Your task to perform on an android device: Go to privacy settings Image 0: 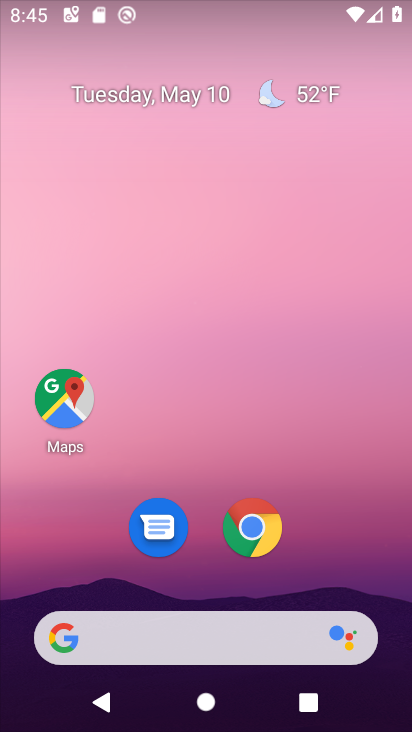
Step 0: click (253, 527)
Your task to perform on an android device: Go to privacy settings Image 1: 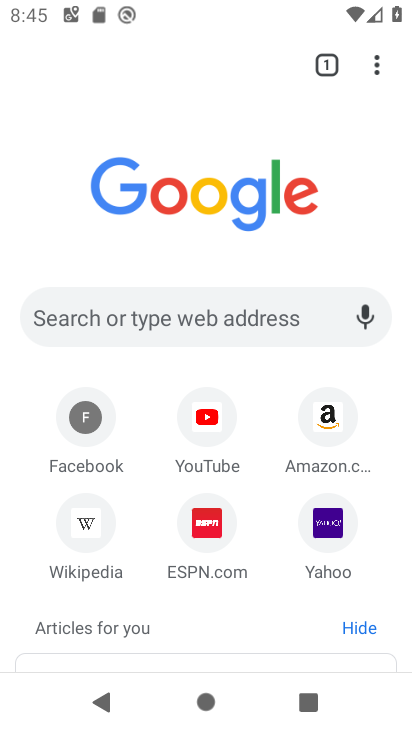
Step 1: click (377, 65)
Your task to perform on an android device: Go to privacy settings Image 2: 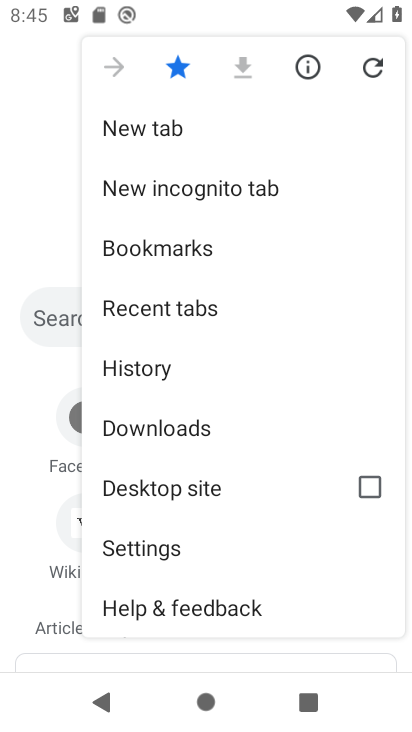
Step 2: click (161, 553)
Your task to perform on an android device: Go to privacy settings Image 3: 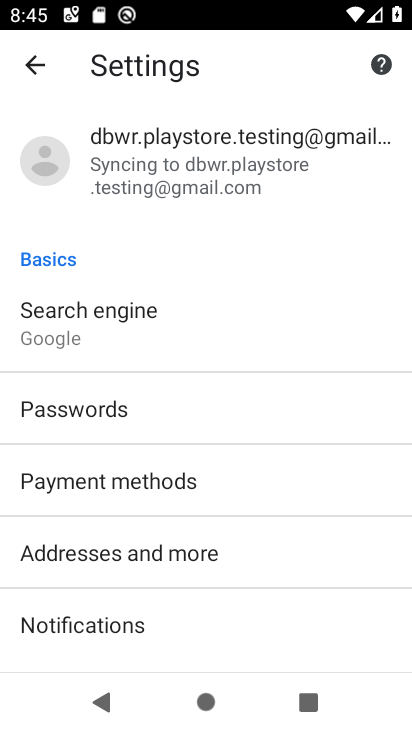
Step 3: drag from (195, 654) to (175, 207)
Your task to perform on an android device: Go to privacy settings Image 4: 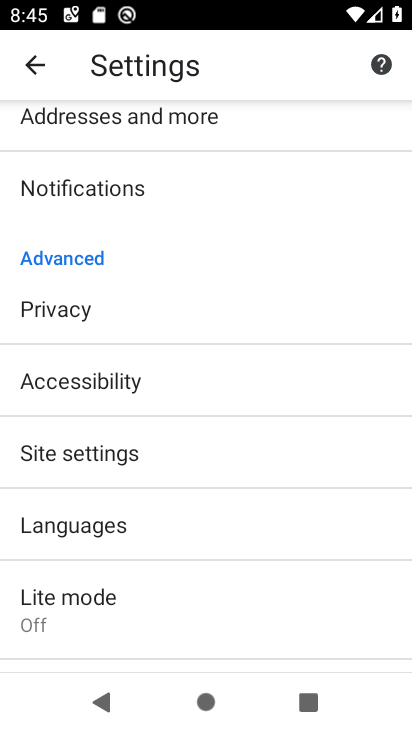
Step 4: click (37, 316)
Your task to perform on an android device: Go to privacy settings Image 5: 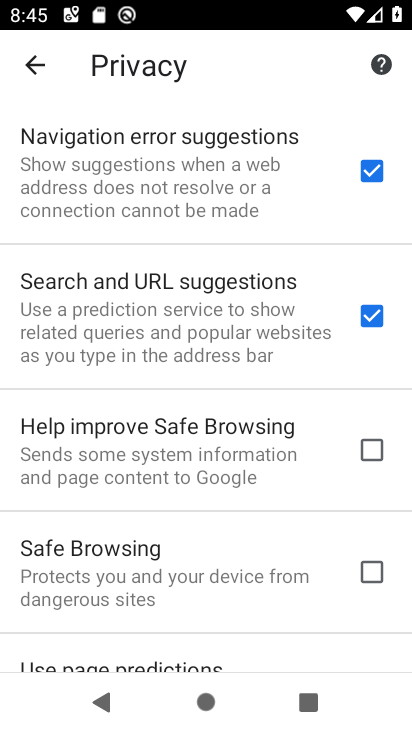
Step 5: task complete